Your task to perform on an android device: Play the latest video from the Washington Post Image 0: 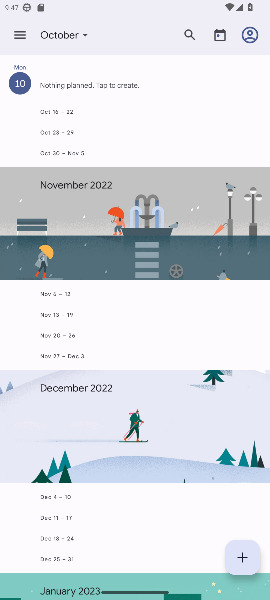
Step 0: press home button
Your task to perform on an android device: Play the latest video from the Washington Post Image 1: 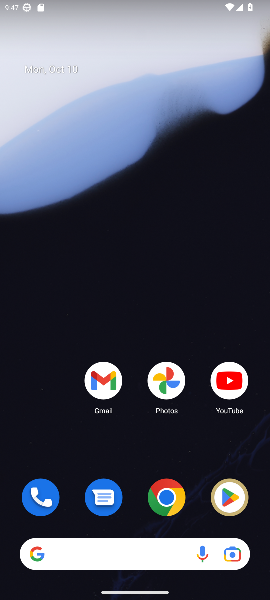
Step 1: drag from (145, 507) to (102, 207)
Your task to perform on an android device: Play the latest video from the Washington Post Image 2: 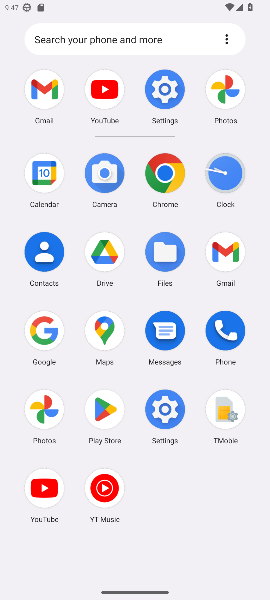
Step 2: click (35, 343)
Your task to perform on an android device: Play the latest video from the Washington Post Image 3: 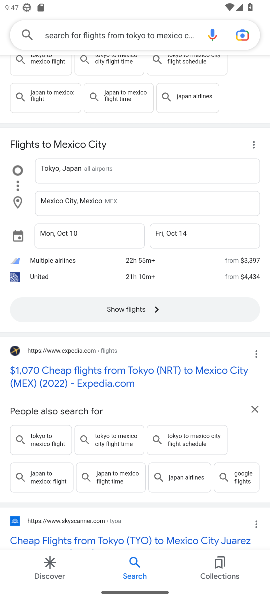
Step 3: click (117, 29)
Your task to perform on an android device: Play the latest video from the Washington Post Image 4: 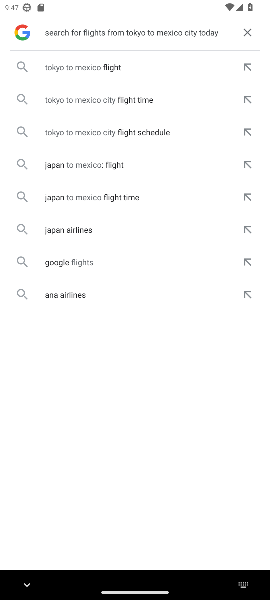
Step 4: click (246, 31)
Your task to perform on an android device: Play the latest video from the Washington Post Image 5: 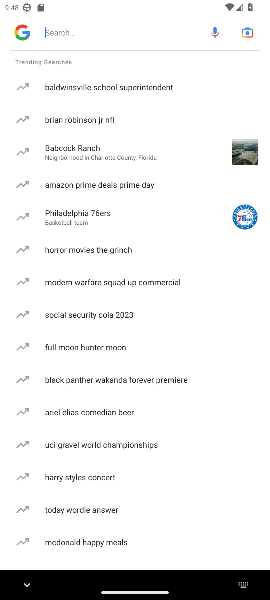
Step 5: click (96, 22)
Your task to perform on an android device: Play the latest video from the Washington Post Image 6: 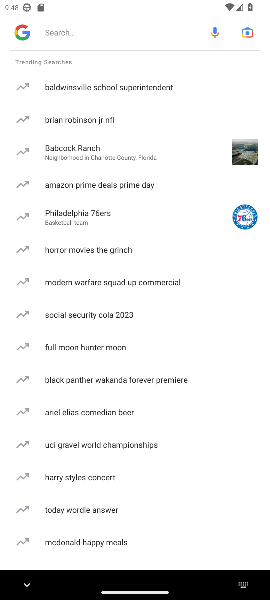
Step 6: type ""
Your task to perform on an android device: Play the latest video from the Washington Post Image 7: 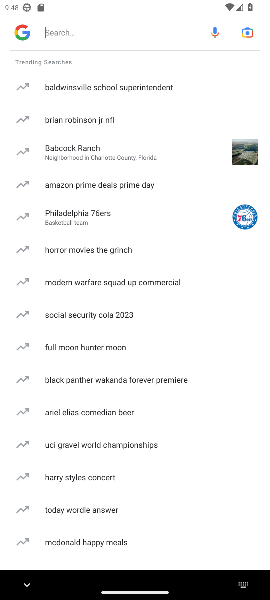
Step 7: type ""
Your task to perform on an android device: Play the latest video from the Washington Post Image 8: 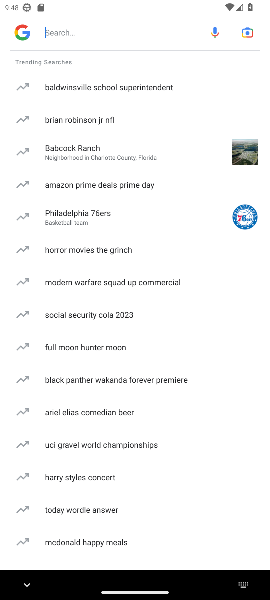
Step 8: type "Play the latest video from the Washington Post "
Your task to perform on an android device: Play the latest video from the Washington Post Image 9: 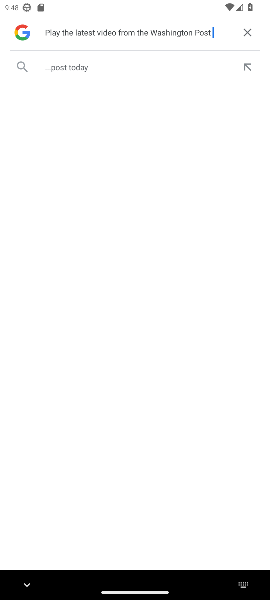
Step 9: click (74, 62)
Your task to perform on an android device: Play the latest video from the Washington Post Image 10: 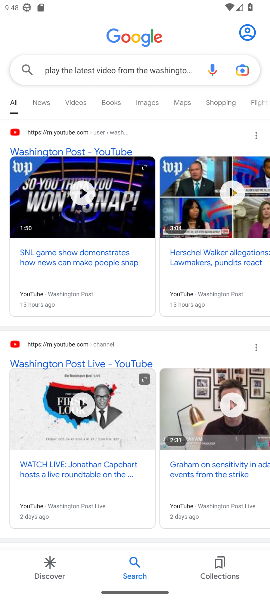
Step 10: task complete